Your task to perform on an android device: set default search engine in the chrome app Image 0: 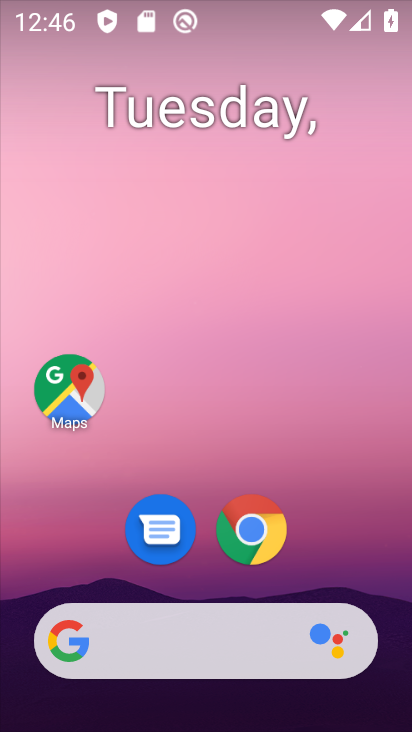
Step 0: drag from (280, 345) to (164, 6)
Your task to perform on an android device: set default search engine in the chrome app Image 1: 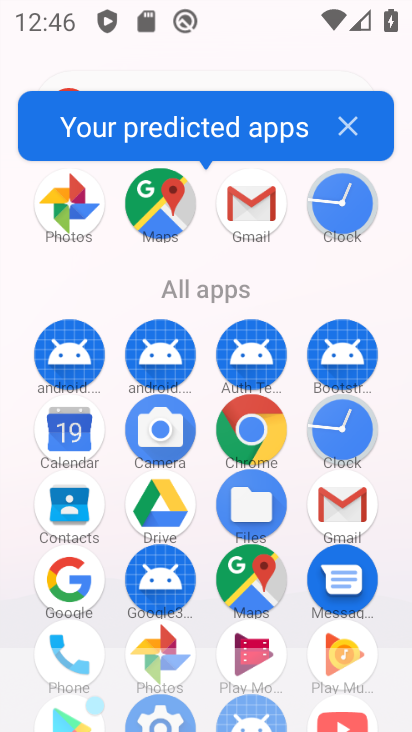
Step 1: click (255, 428)
Your task to perform on an android device: set default search engine in the chrome app Image 2: 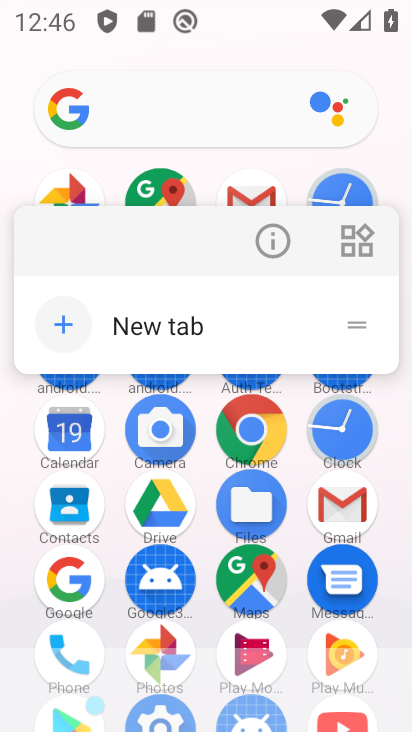
Step 2: click (255, 428)
Your task to perform on an android device: set default search engine in the chrome app Image 3: 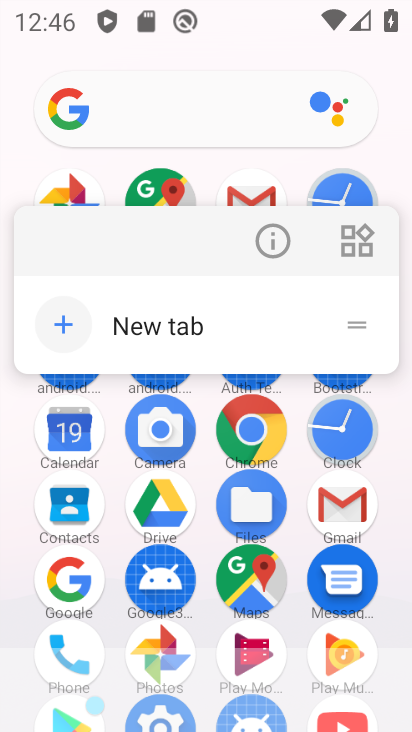
Step 3: click (251, 430)
Your task to perform on an android device: set default search engine in the chrome app Image 4: 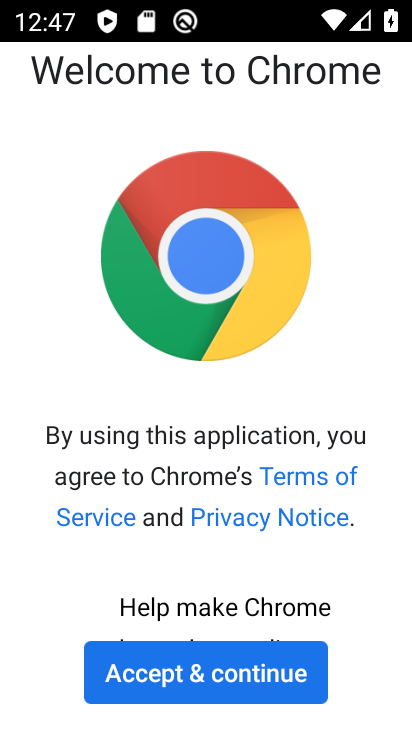
Step 4: click (237, 661)
Your task to perform on an android device: set default search engine in the chrome app Image 5: 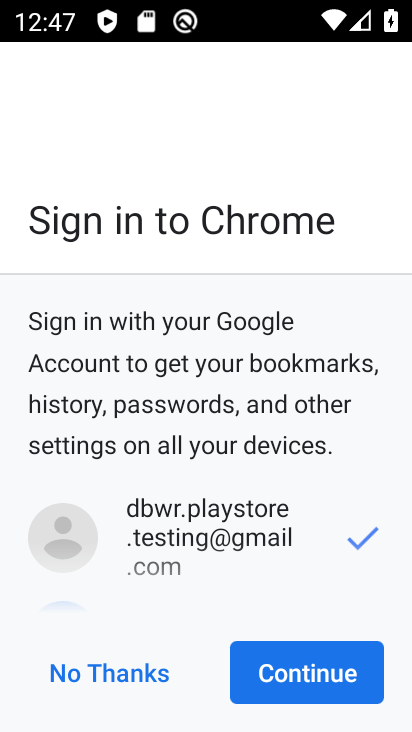
Step 5: click (285, 677)
Your task to perform on an android device: set default search engine in the chrome app Image 6: 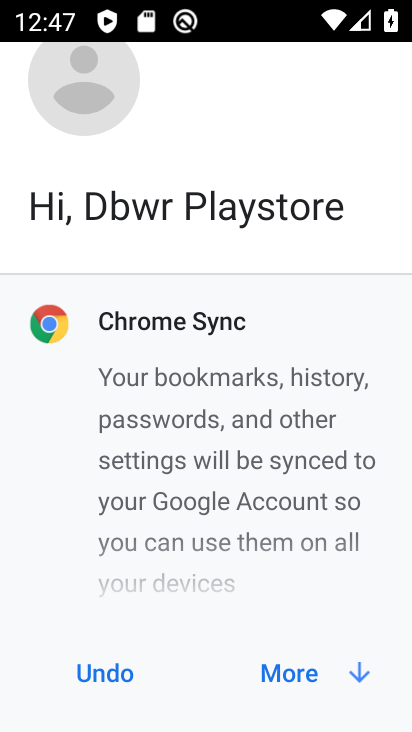
Step 6: click (285, 677)
Your task to perform on an android device: set default search engine in the chrome app Image 7: 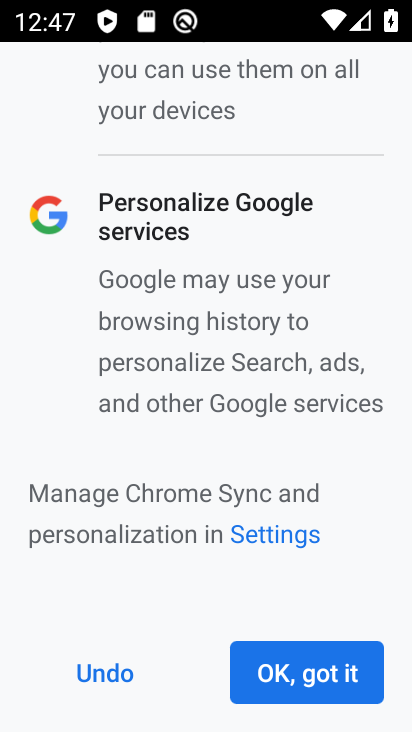
Step 7: click (285, 677)
Your task to perform on an android device: set default search engine in the chrome app Image 8: 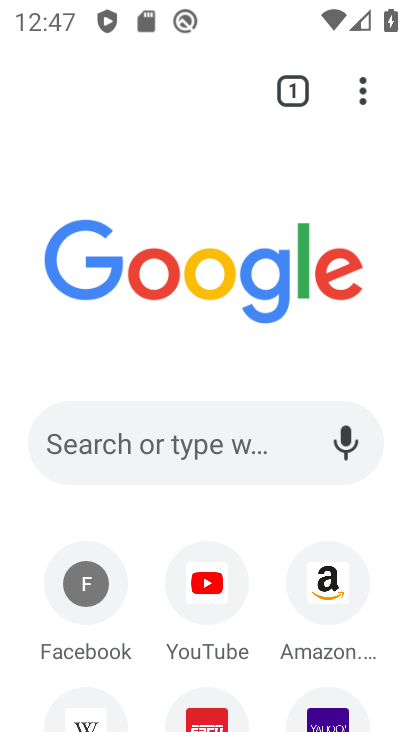
Step 8: click (367, 102)
Your task to perform on an android device: set default search engine in the chrome app Image 9: 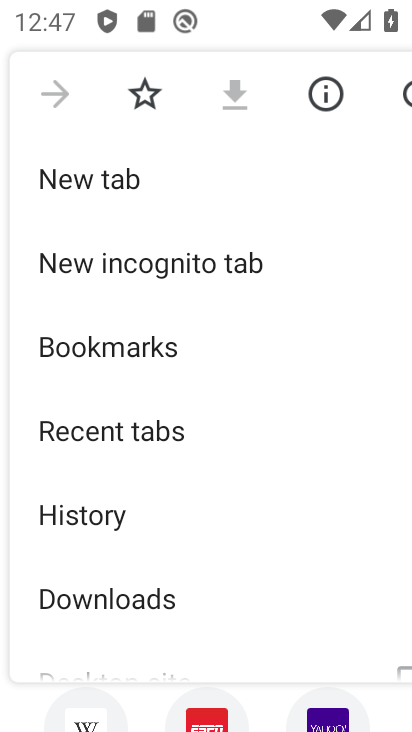
Step 9: drag from (264, 633) to (192, 246)
Your task to perform on an android device: set default search engine in the chrome app Image 10: 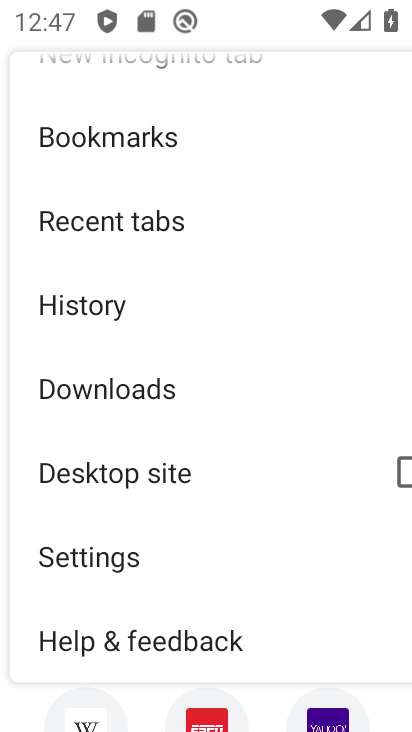
Step 10: click (208, 565)
Your task to perform on an android device: set default search engine in the chrome app Image 11: 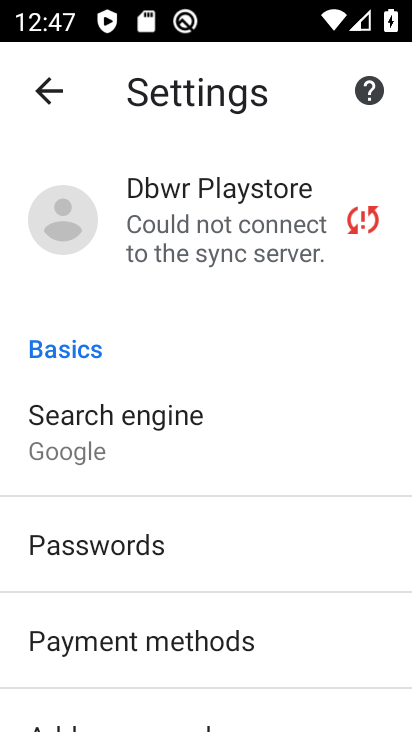
Step 11: drag from (297, 631) to (212, 185)
Your task to perform on an android device: set default search engine in the chrome app Image 12: 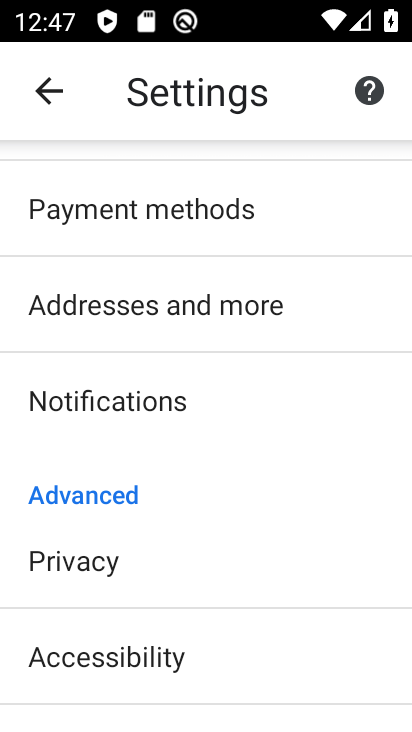
Step 12: drag from (212, 185) to (314, 731)
Your task to perform on an android device: set default search engine in the chrome app Image 13: 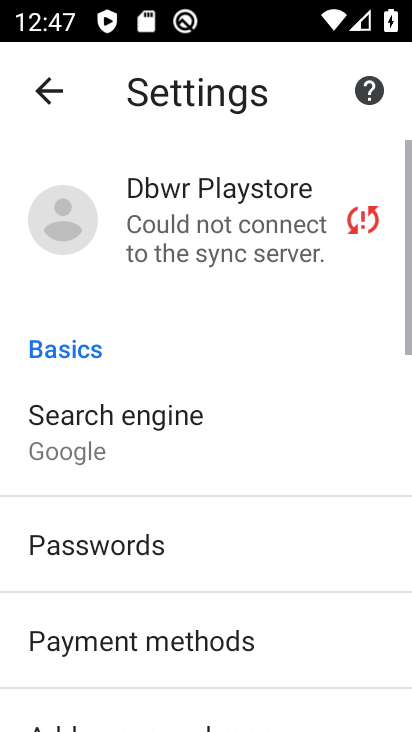
Step 13: click (242, 486)
Your task to perform on an android device: set default search engine in the chrome app Image 14: 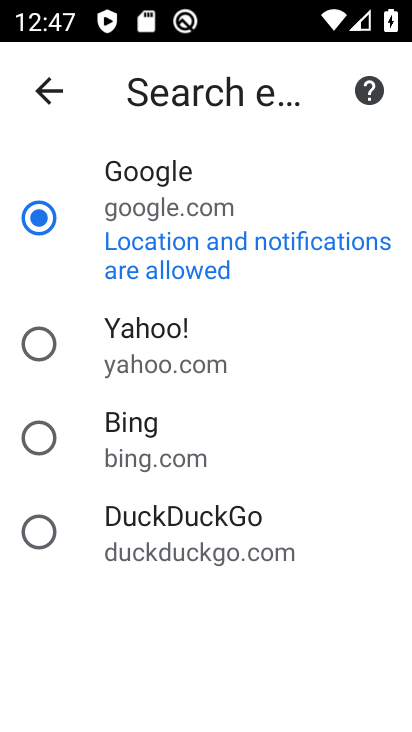
Step 14: click (182, 371)
Your task to perform on an android device: set default search engine in the chrome app Image 15: 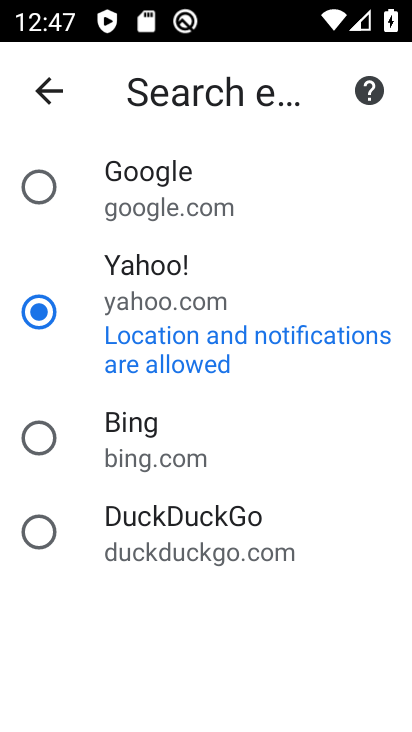
Step 15: task complete